Your task to perform on an android device: change the clock display to digital Image 0: 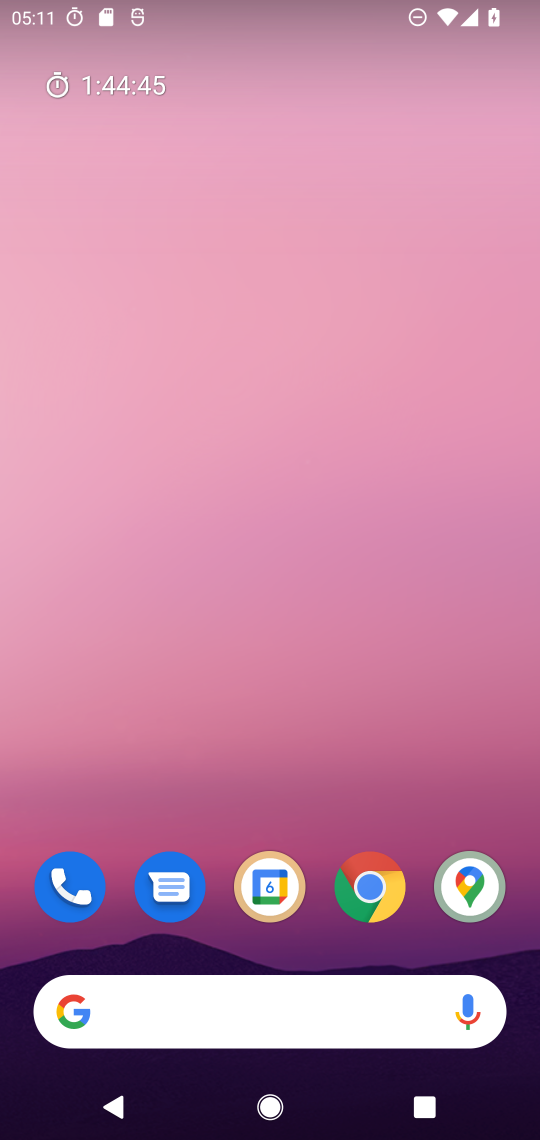
Step 0: press home button
Your task to perform on an android device: change the clock display to digital Image 1: 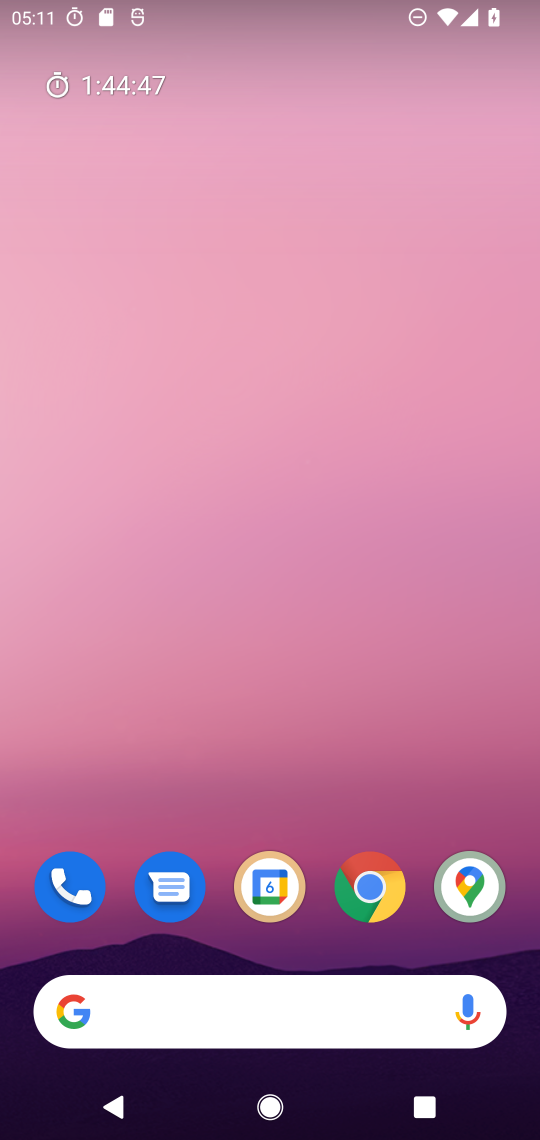
Step 1: drag from (415, 836) to (454, 364)
Your task to perform on an android device: change the clock display to digital Image 2: 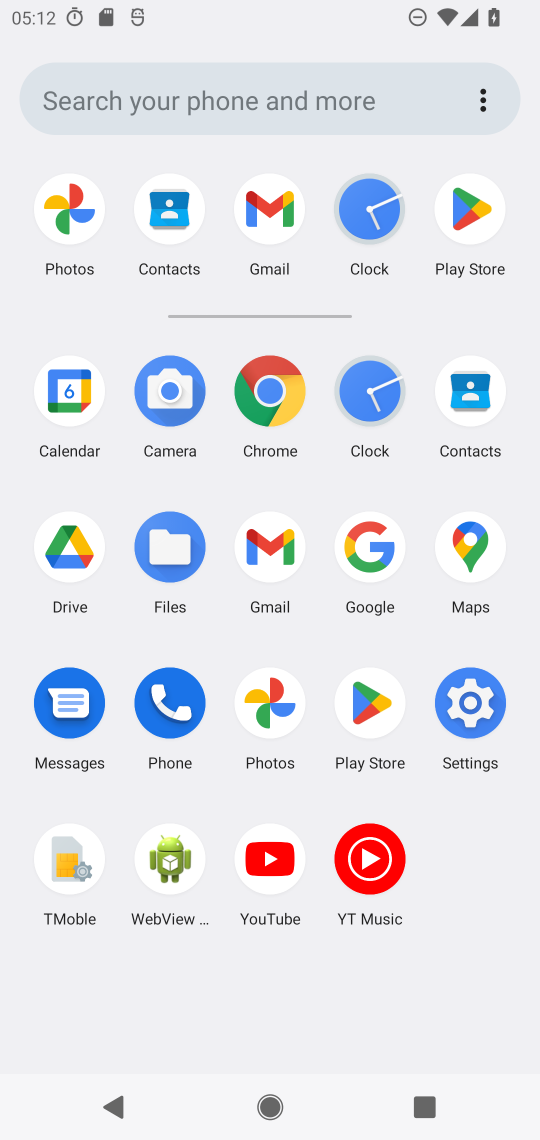
Step 2: click (362, 388)
Your task to perform on an android device: change the clock display to digital Image 3: 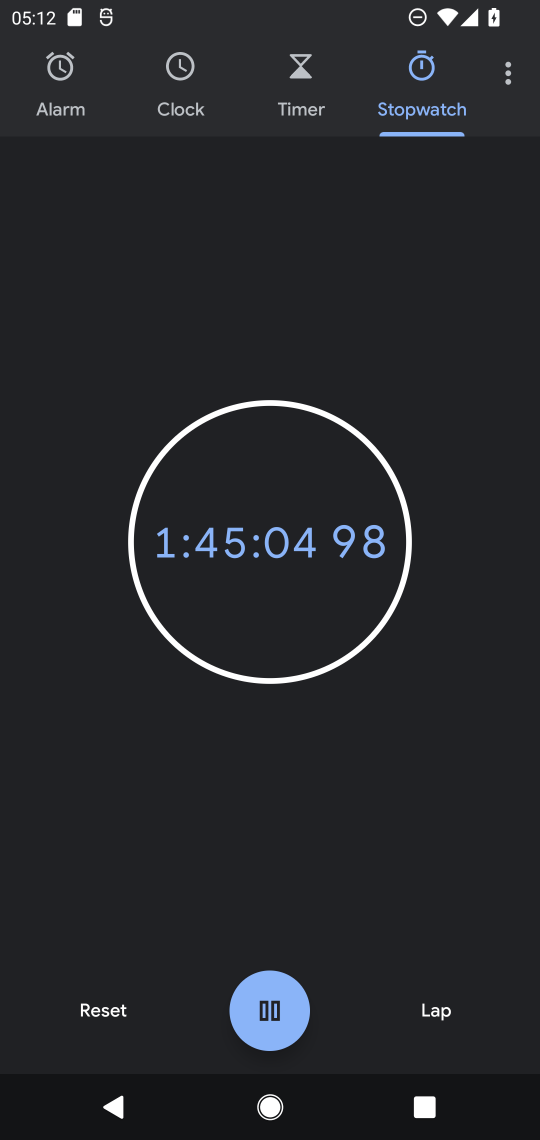
Step 3: click (506, 83)
Your task to perform on an android device: change the clock display to digital Image 4: 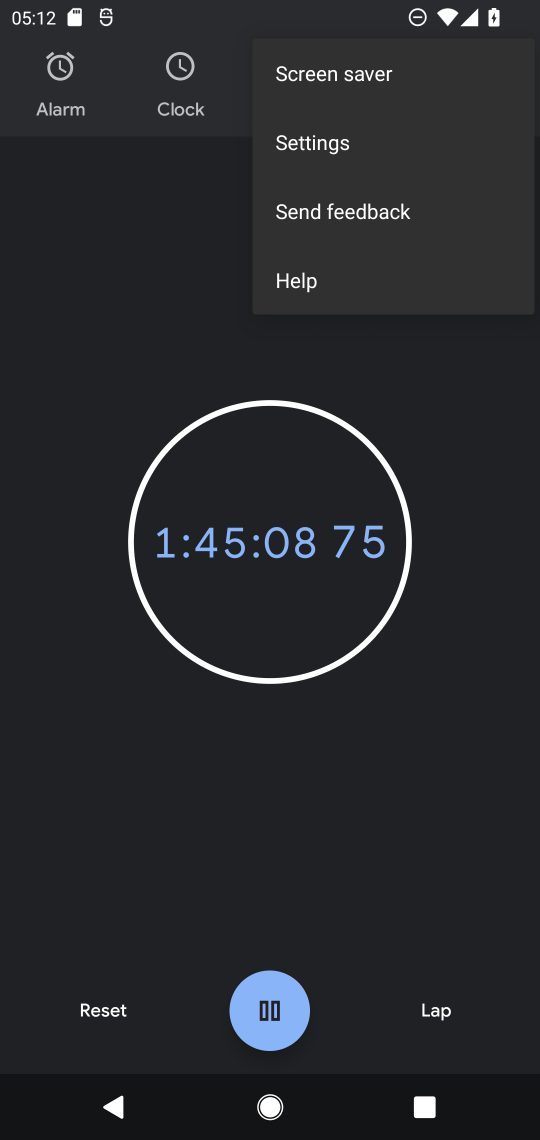
Step 4: click (352, 134)
Your task to perform on an android device: change the clock display to digital Image 5: 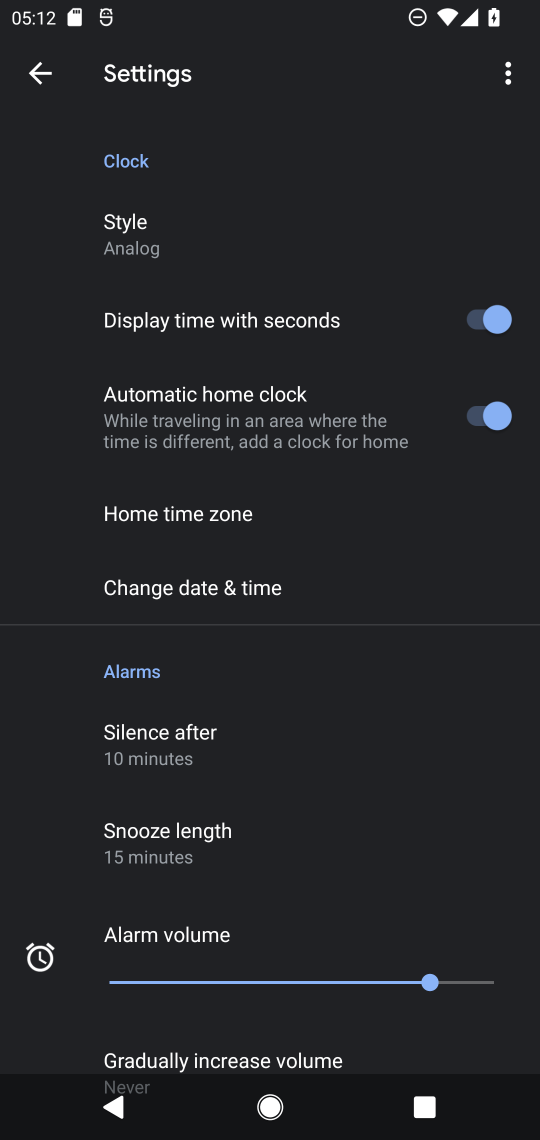
Step 5: drag from (407, 563) to (422, 426)
Your task to perform on an android device: change the clock display to digital Image 6: 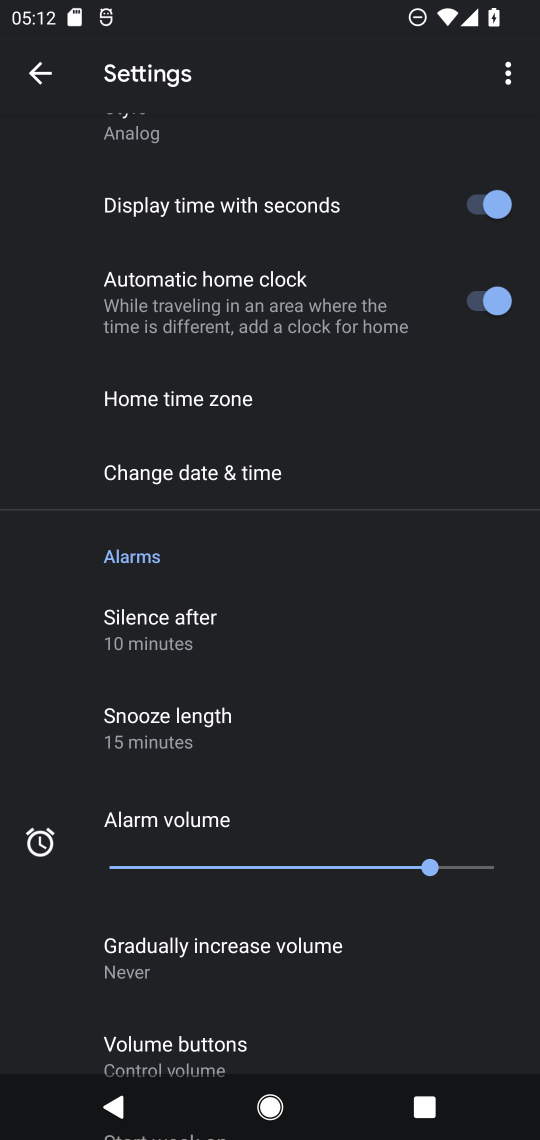
Step 6: drag from (413, 573) to (413, 451)
Your task to perform on an android device: change the clock display to digital Image 7: 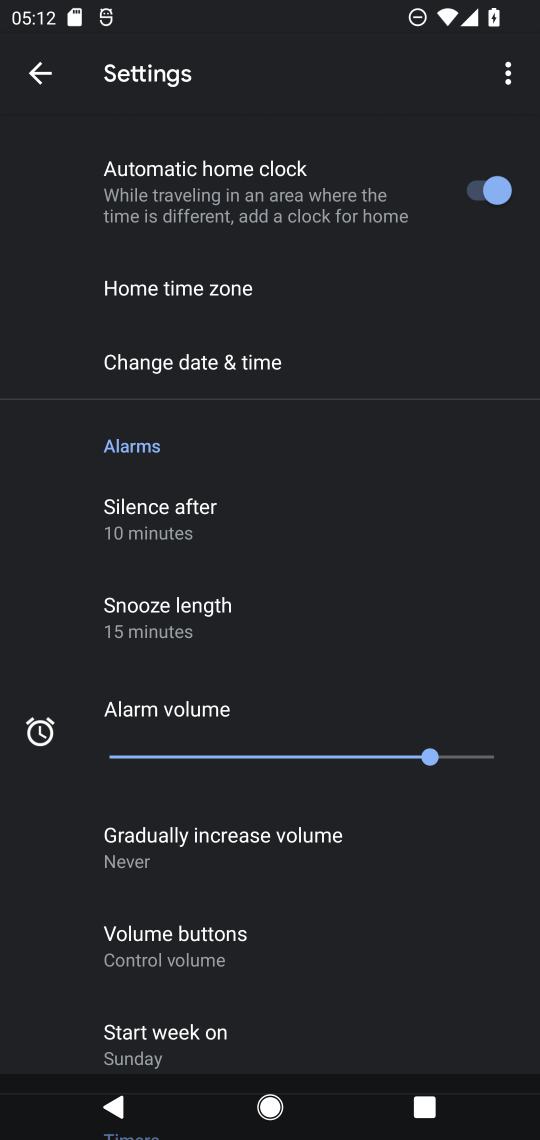
Step 7: drag from (398, 646) to (414, 516)
Your task to perform on an android device: change the clock display to digital Image 8: 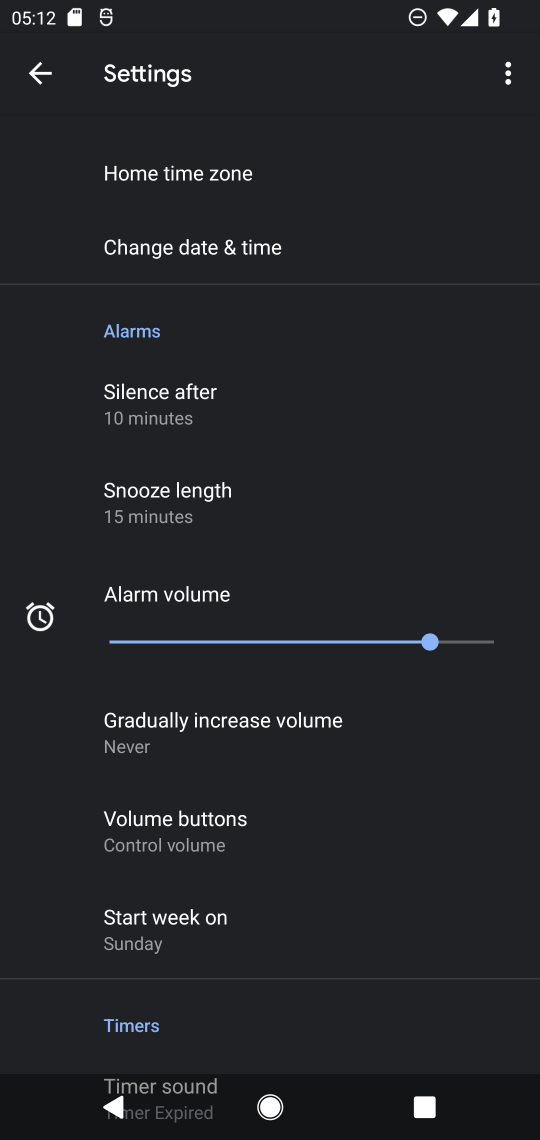
Step 8: drag from (380, 711) to (402, 570)
Your task to perform on an android device: change the clock display to digital Image 9: 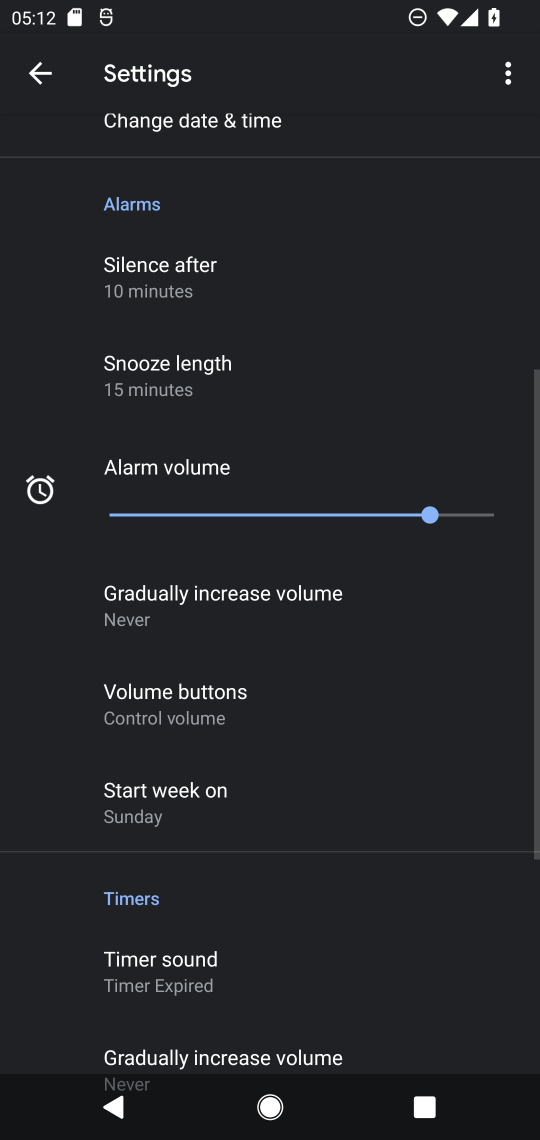
Step 9: drag from (396, 724) to (406, 603)
Your task to perform on an android device: change the clock display to digital Image 10: 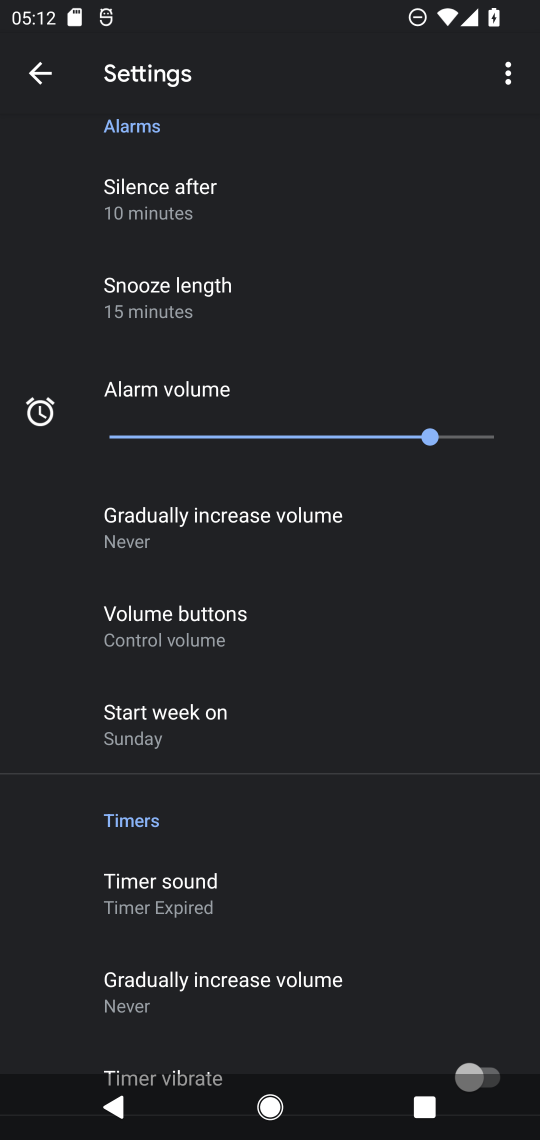
Step 10: drag from (375, 798) to (406, 611)
Your task to perform on an android device: change the clock display to digital Image 11: 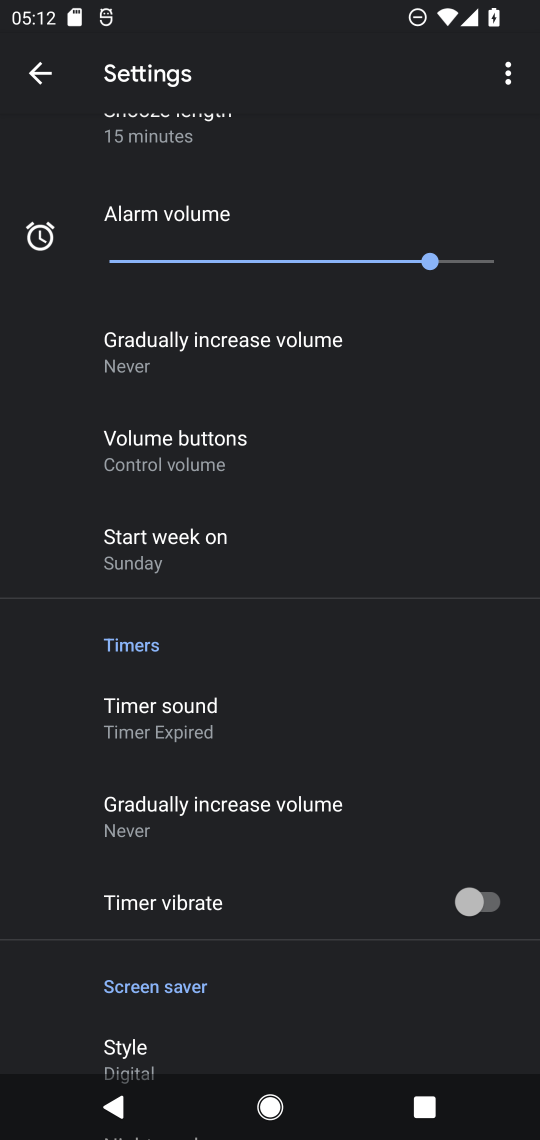
Step 11: drag from (386, 852) to (397, 661)
Your task to perform on an android device: change the clock display to digital Image 12: 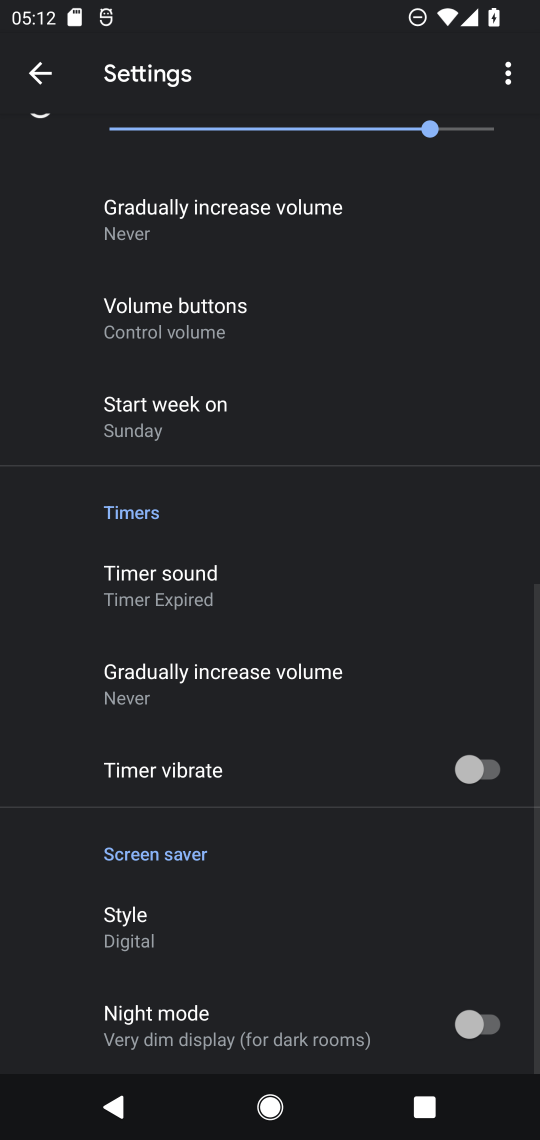
Step 12: drag from (398, 457) to (409, 603)
Your task to perform on an android device: change the clock display to digital Image 13: 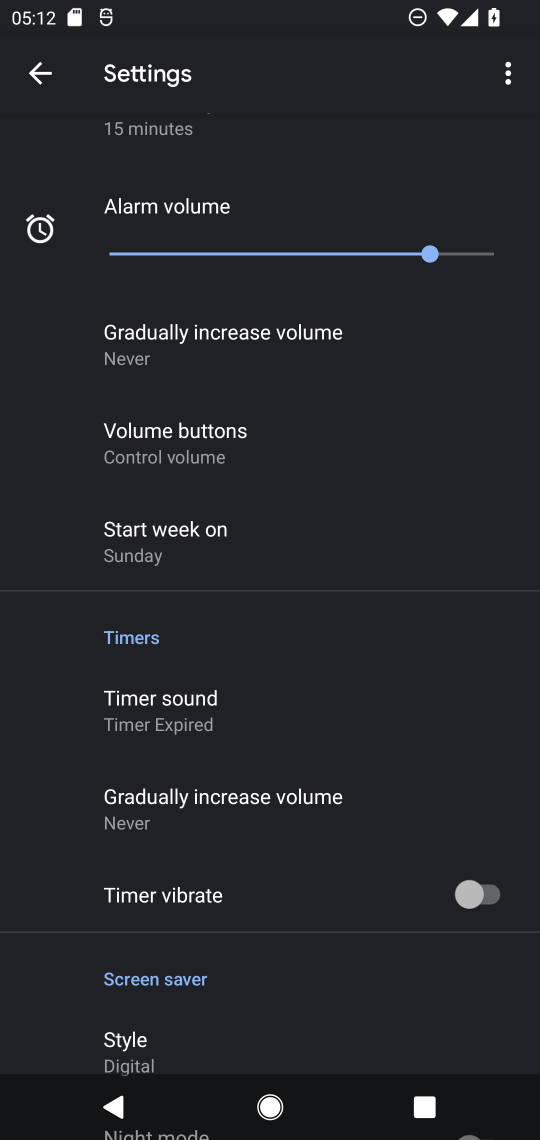
Step 13: drag from (412, 421) to (418, 545)
Your task to perform on an android device: change the clock display to digital Image 14: 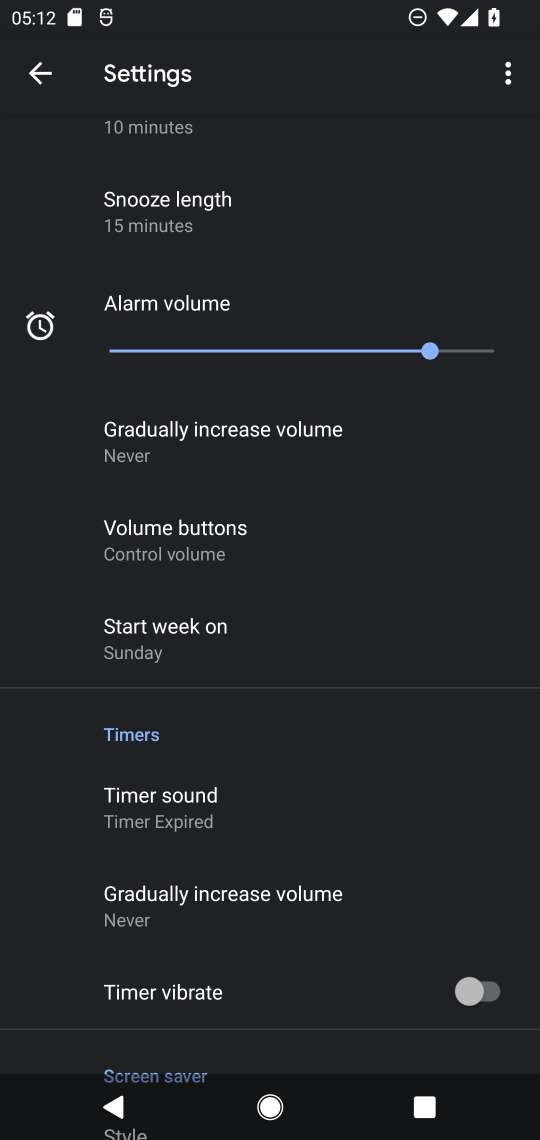
Step 14: drag from (425, 326) to (442, 516)
Your task to perform on an android device: change the clock display to digital Image 15: 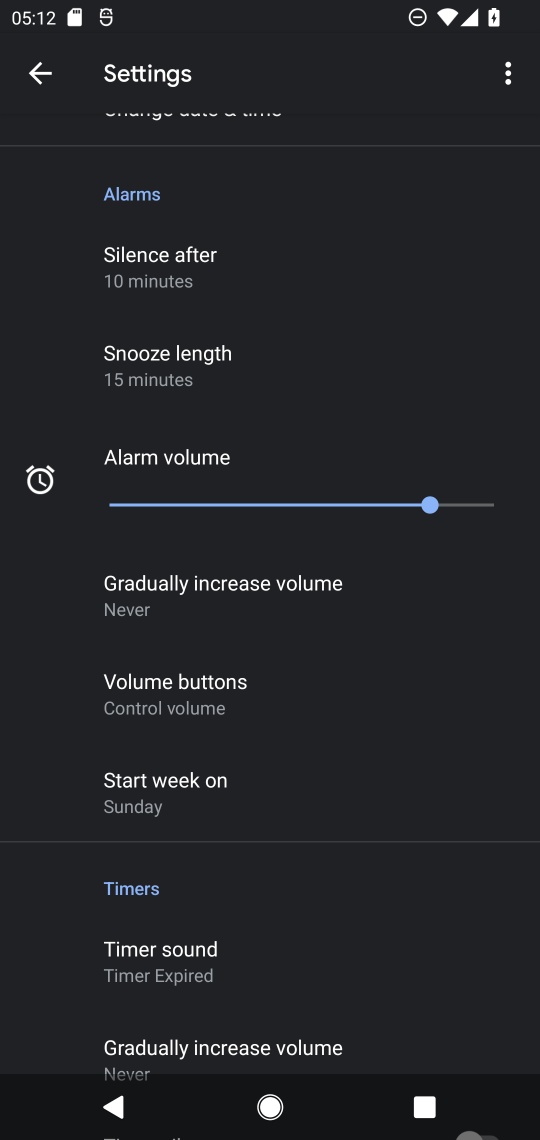
Step 15: drag from (446, 322) to (451, 484)
Your task to perform on an android device: change the clock display to digital Image 16: 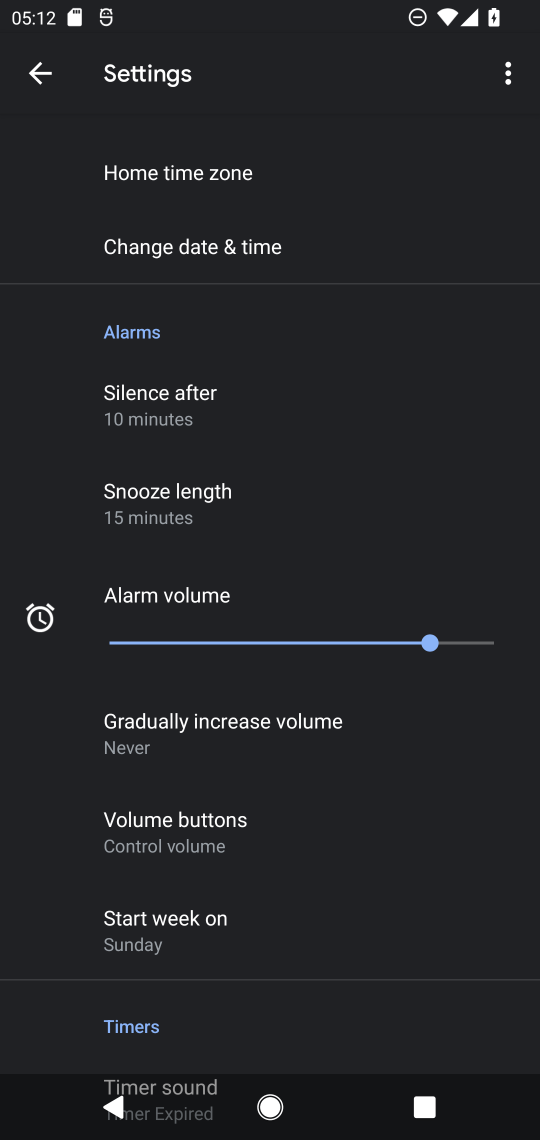
Step 16: drag from (421, 242) to (426, 382)
Your task to perform on an android device: change the clock display to digital Image 17: 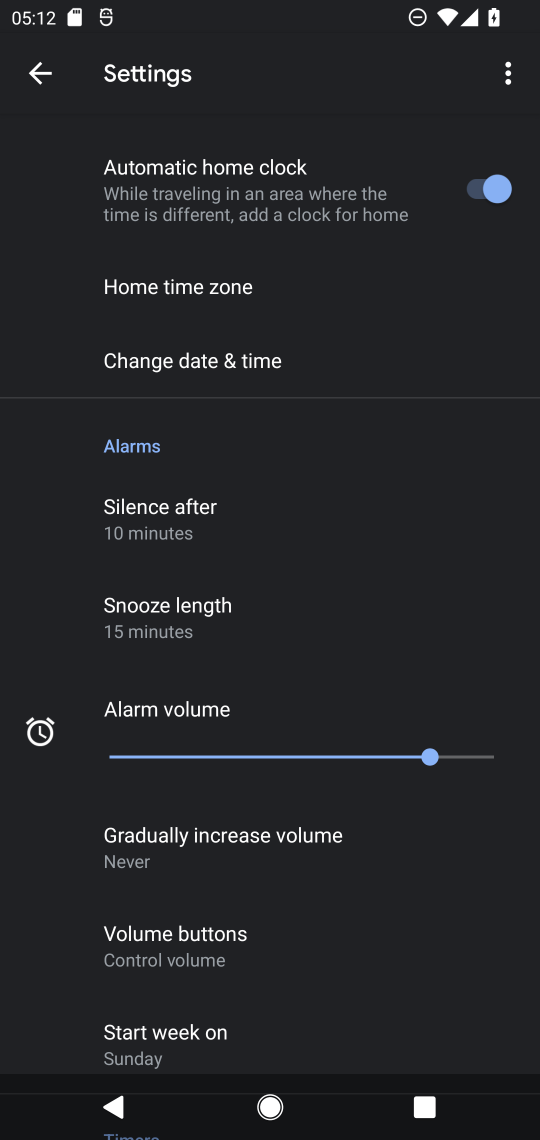
Step 17: drag from (427, 205) to (424, 453)
Your task to perform on an android device: change the clock display to digital Image 18: 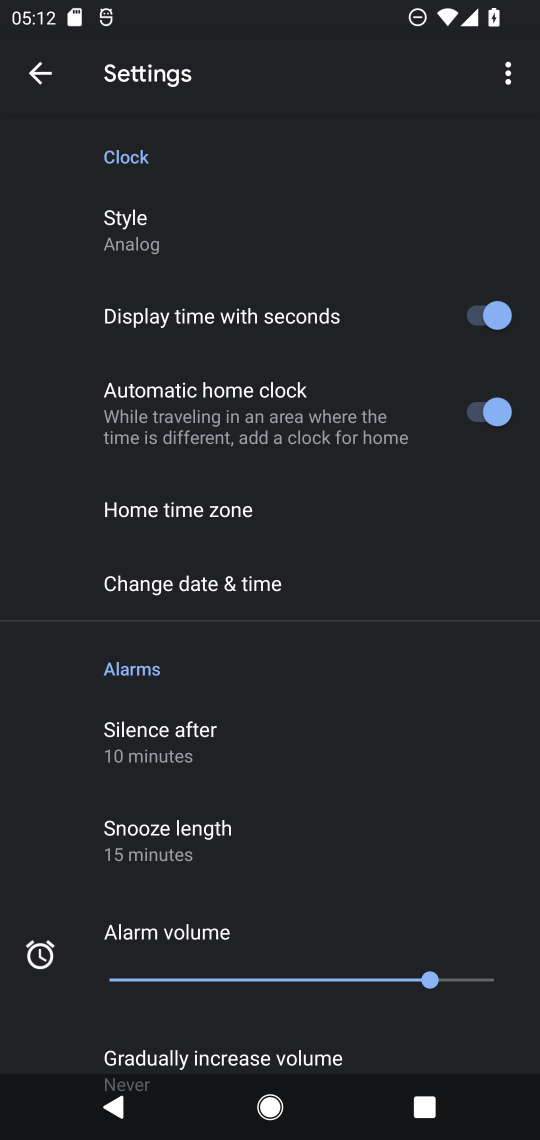
Step 18: click (180, 232)
Your task to perform on an android device: change the clock display to digital Image 19: 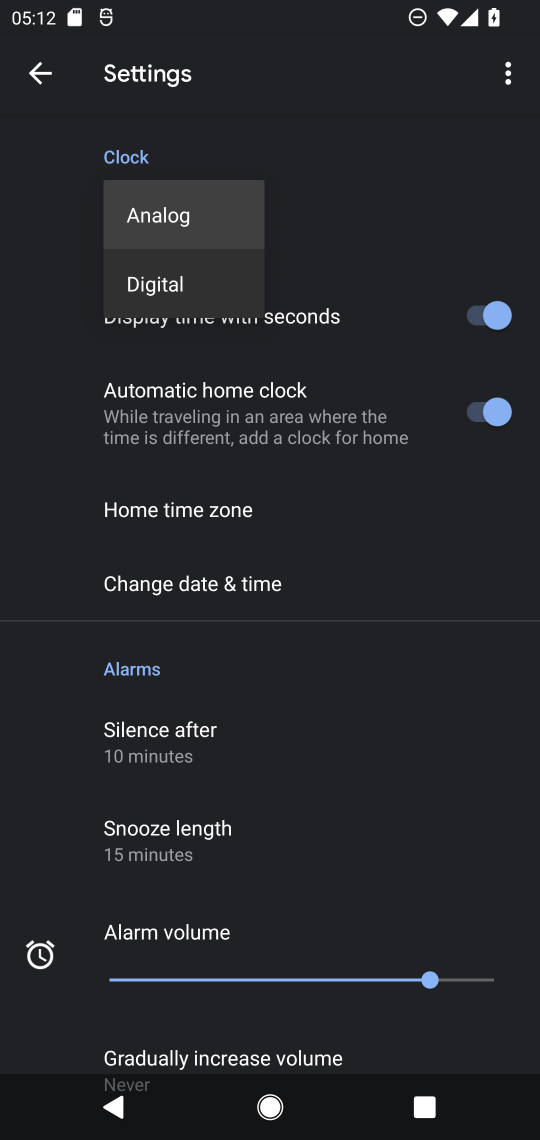
Step 19: click (182, 268)
Your task to perform on an android device: change the clock display to digital Image 20: 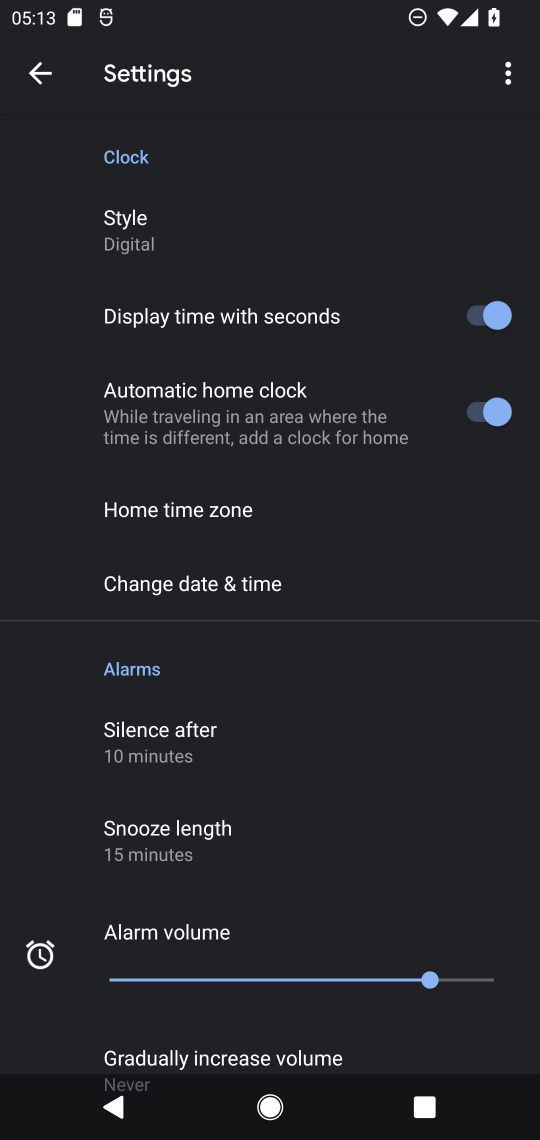
Step 20: task complete